Your task to perform on an android device: Open sound settings Image 0: 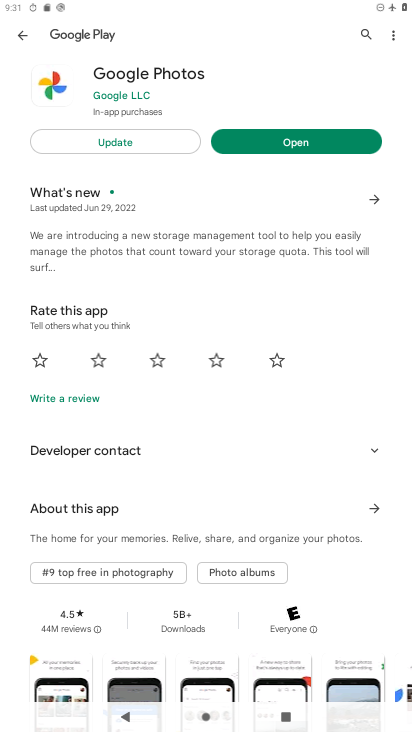
Step 0: drag from (140, 10) to (169, 558)
Your task to perform on an android device: Open sound settings Image 1: 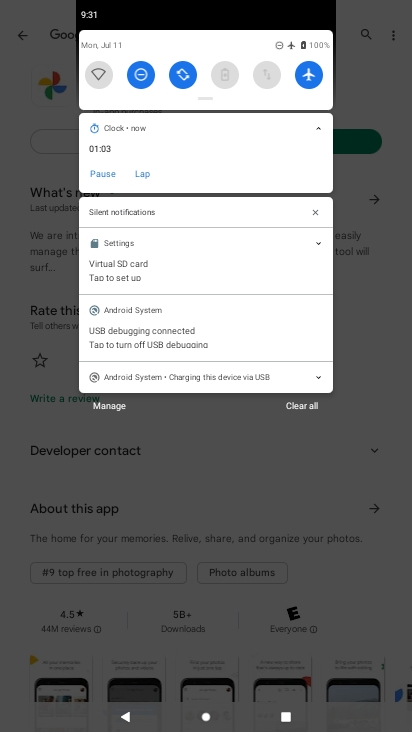
Step 1: drag from (168, 52) to (176, 522)
Your task to perform on an android device: Open sound settings Image 2: 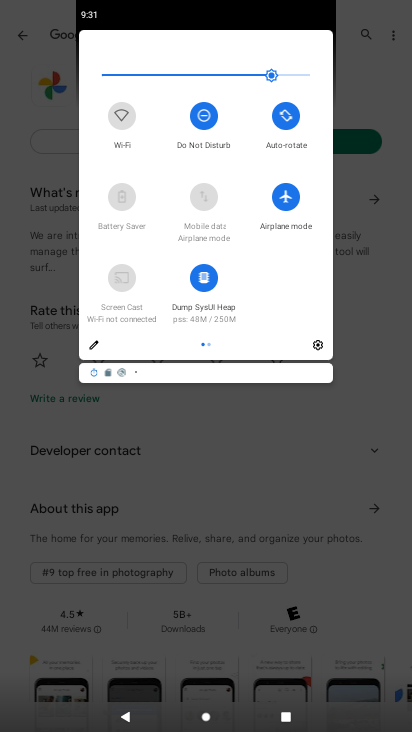
Step 2: click (323, 347)
Your task to perform on an android device: Open sound settings Image 3: 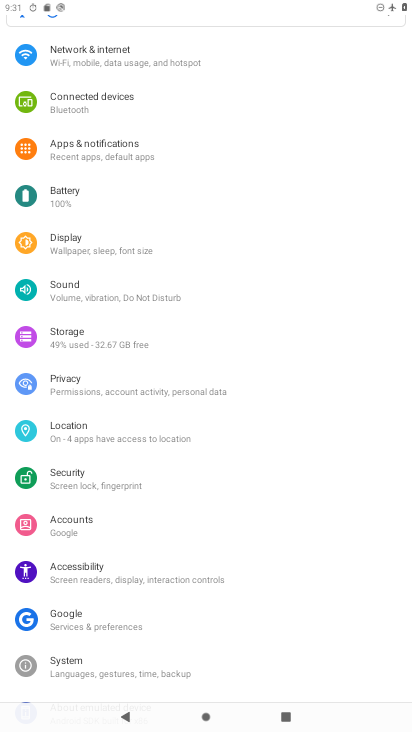
Step 3: click (154, 300)
Your task to perform on an android device: Open sound settings Image 4: 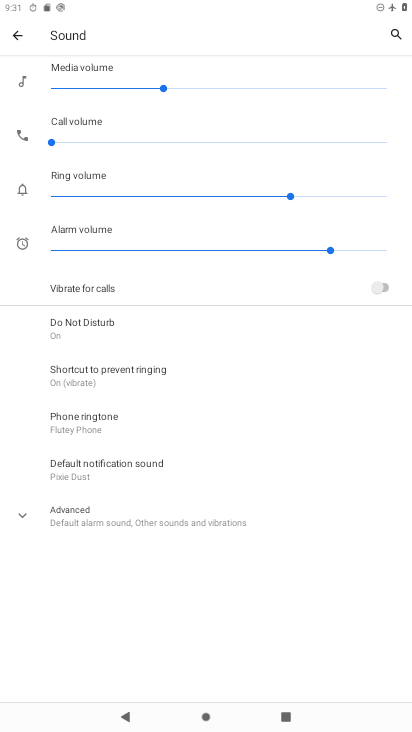
Step 4: task complete